Your task to perform on an android device: Go to battery settings Image 0: 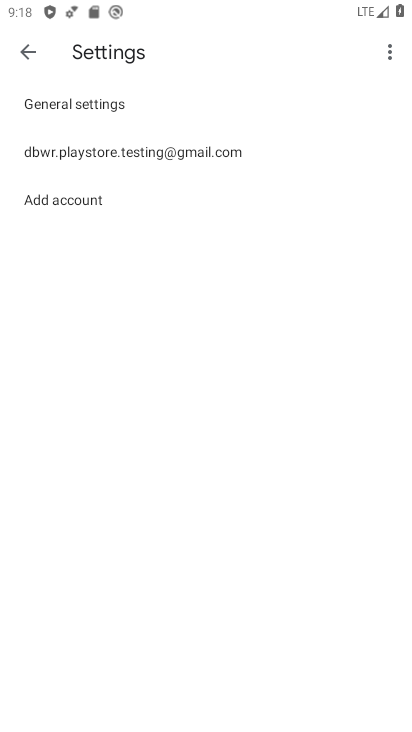
Step 0: press home button
Your task to perform on an android device: Go to battery settings Image 1: 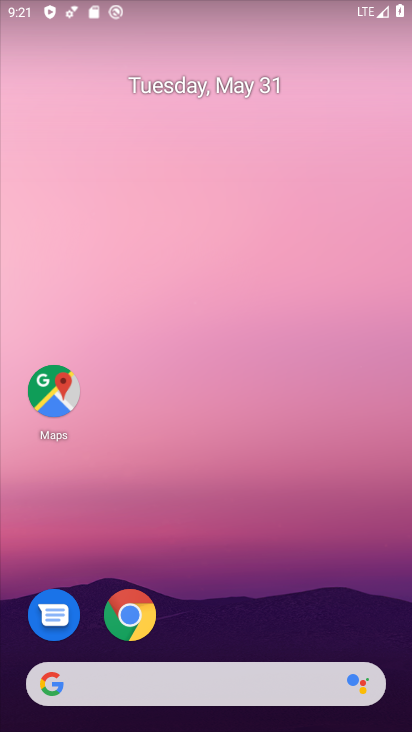
Step 1: drag from (287, 539) to (241, 39)
Your task to perform on an android device: Go to battery settings Image 2: 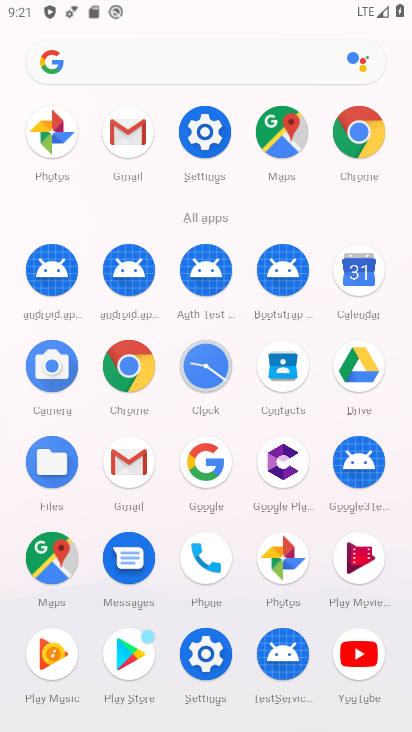
Step 2: click (199, 141)
Your task to perform on an android device: Go to battery settings Image 3: 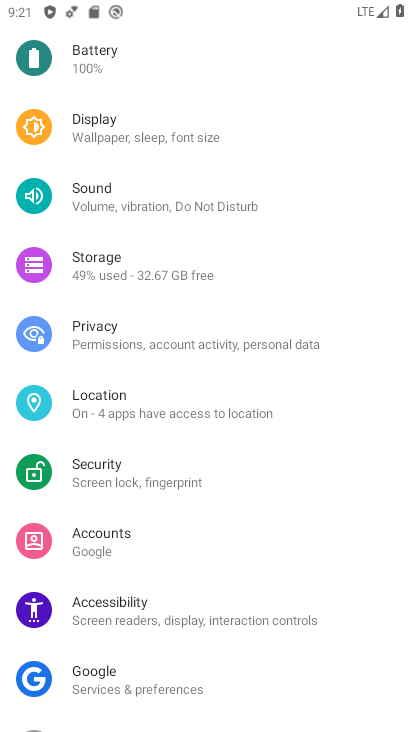
Step 3: drag from (148, 206) to (151, 515)
Your task to perform on an android device: Go to battery settings Image 4: 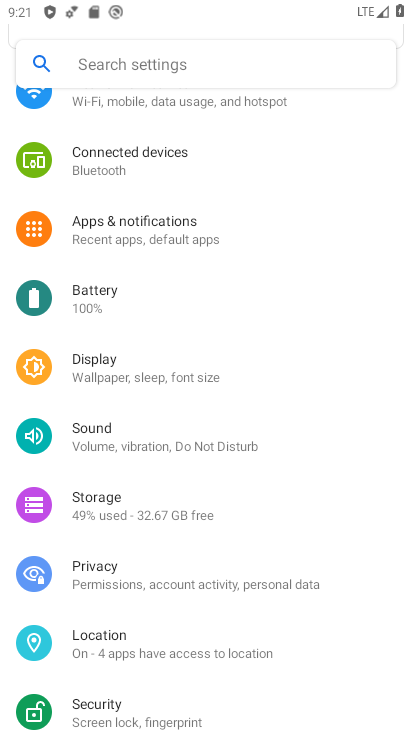
Step 4: click (95, 289)
Your task to perform on an android device: Go to battery settings Image 5: 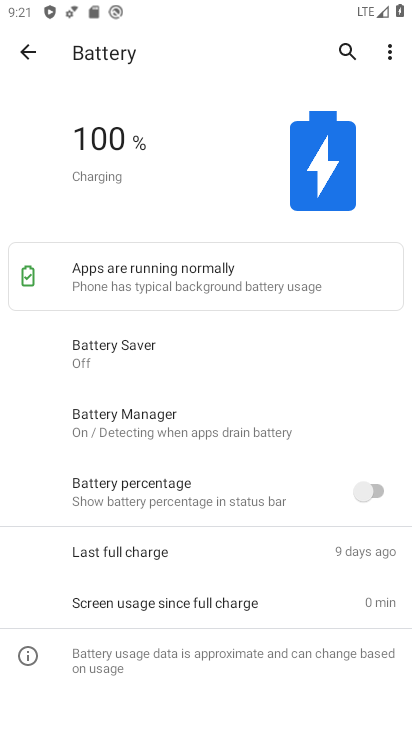
Step 5: task complete